Your task to perform on an android device: empty trash in google photos Image 0: 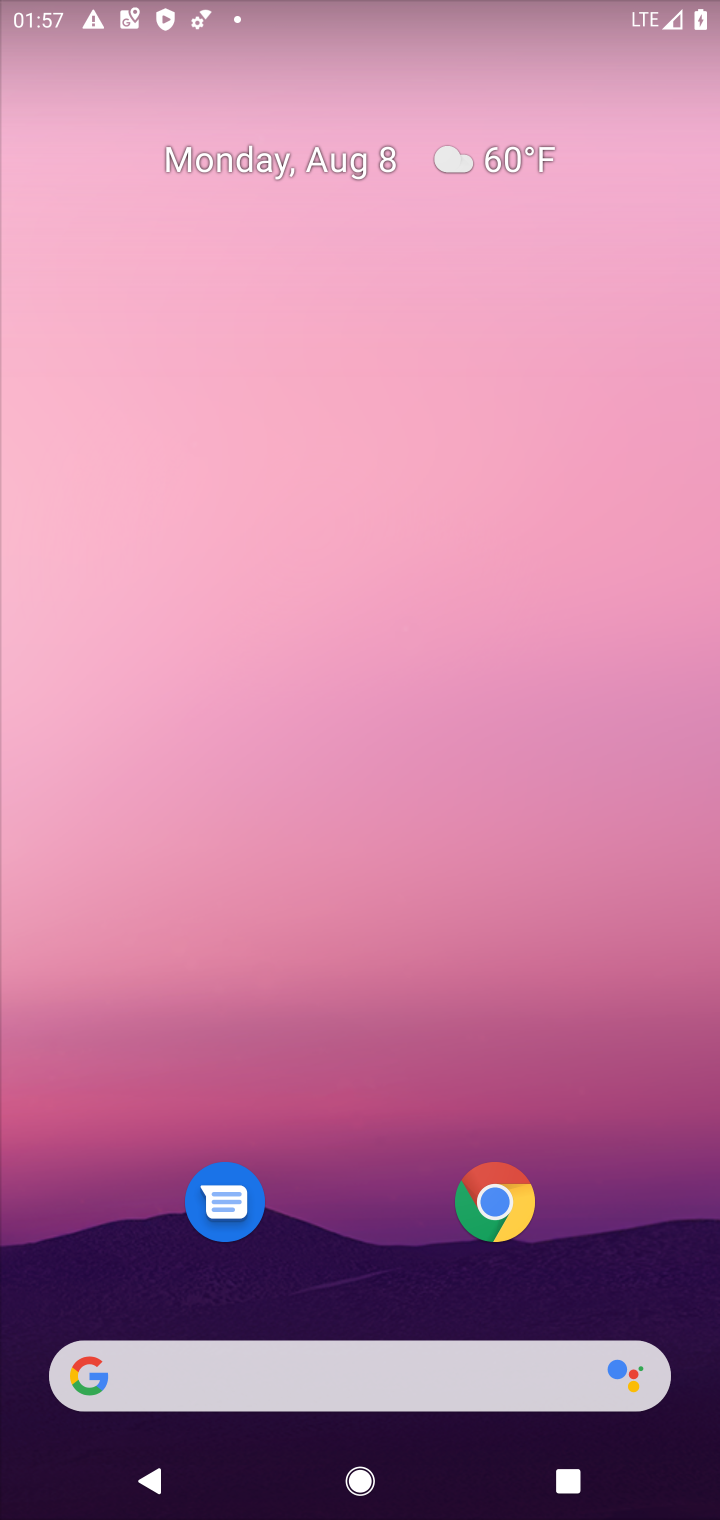
Step 0: drag from (347, 987) to (349, 44)
Your task to perform on an android device: empty trash in google photos Image 1: 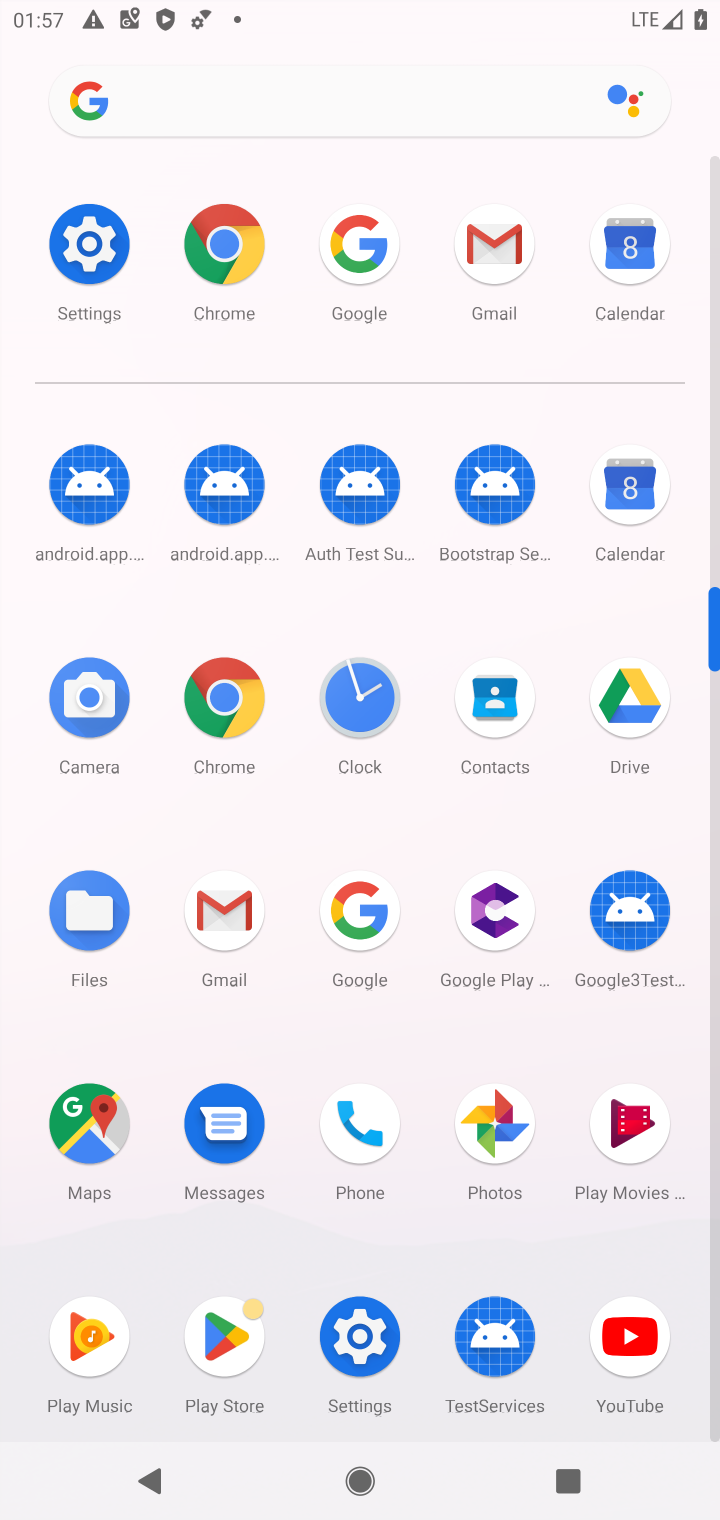
Step 1: click (502, 1107)
Your task to perform on an android device: empty trash in google photos Image 2: 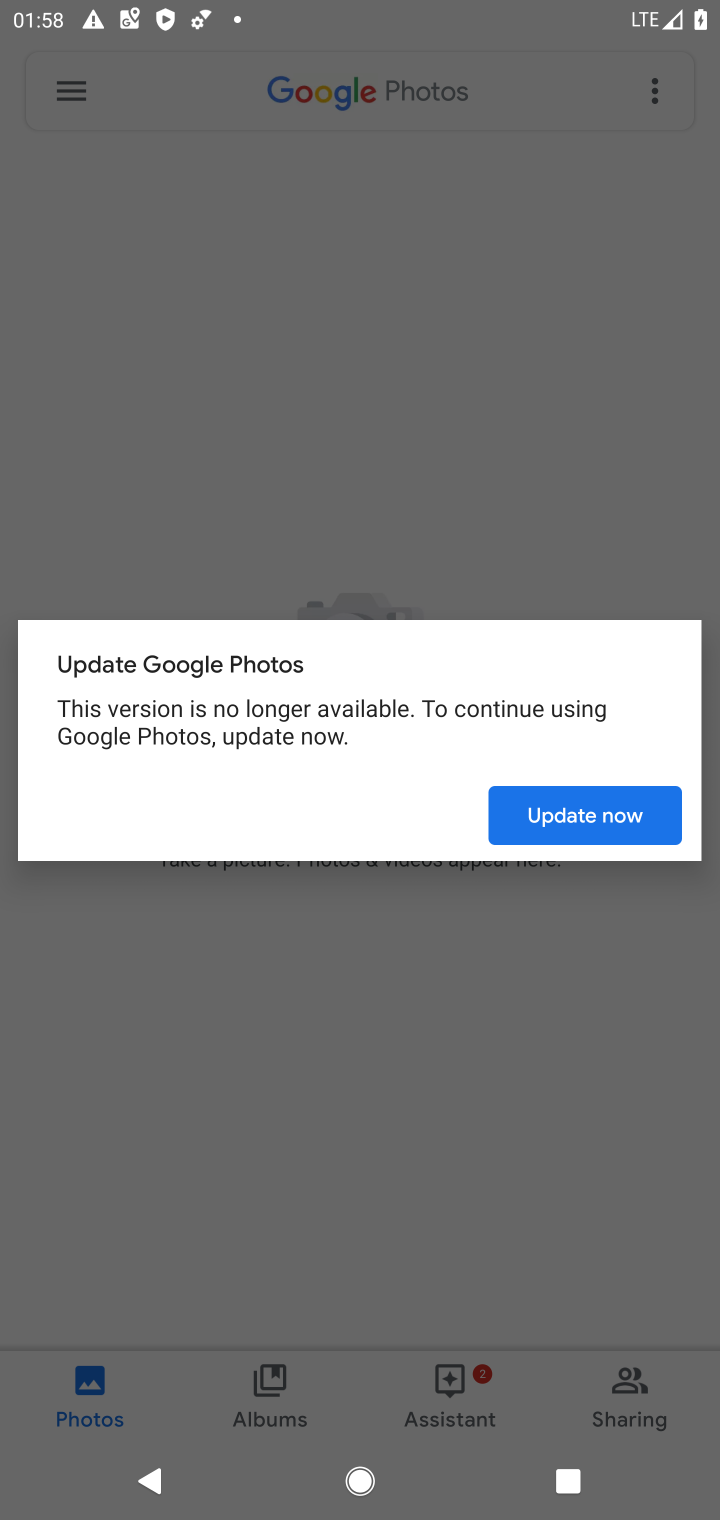
Step 2: click (588, 815)
Your task to perform on an android device: empty trash in google photos Image 3: 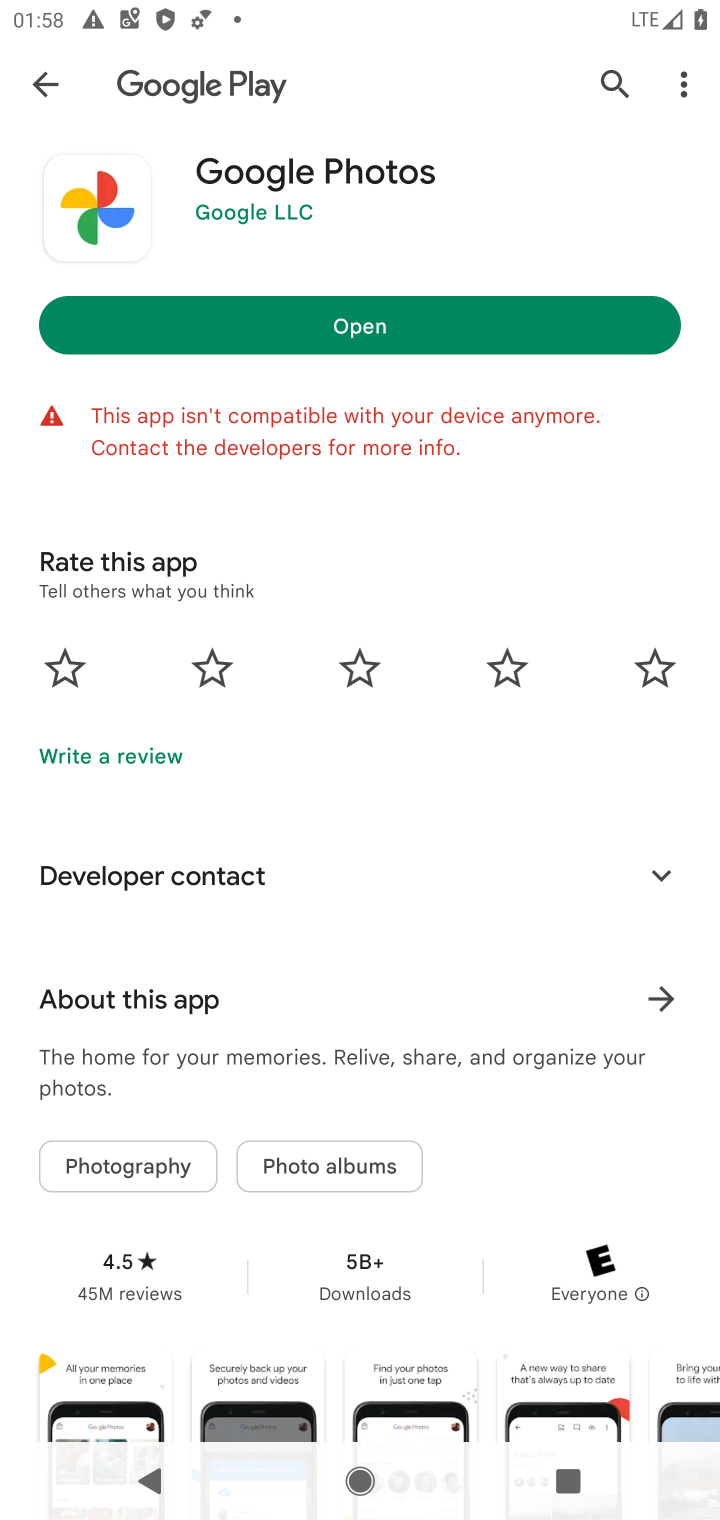
Step 3: click (290, 306)
Your task to perform on an android device: empty trash in google photos Image 4: 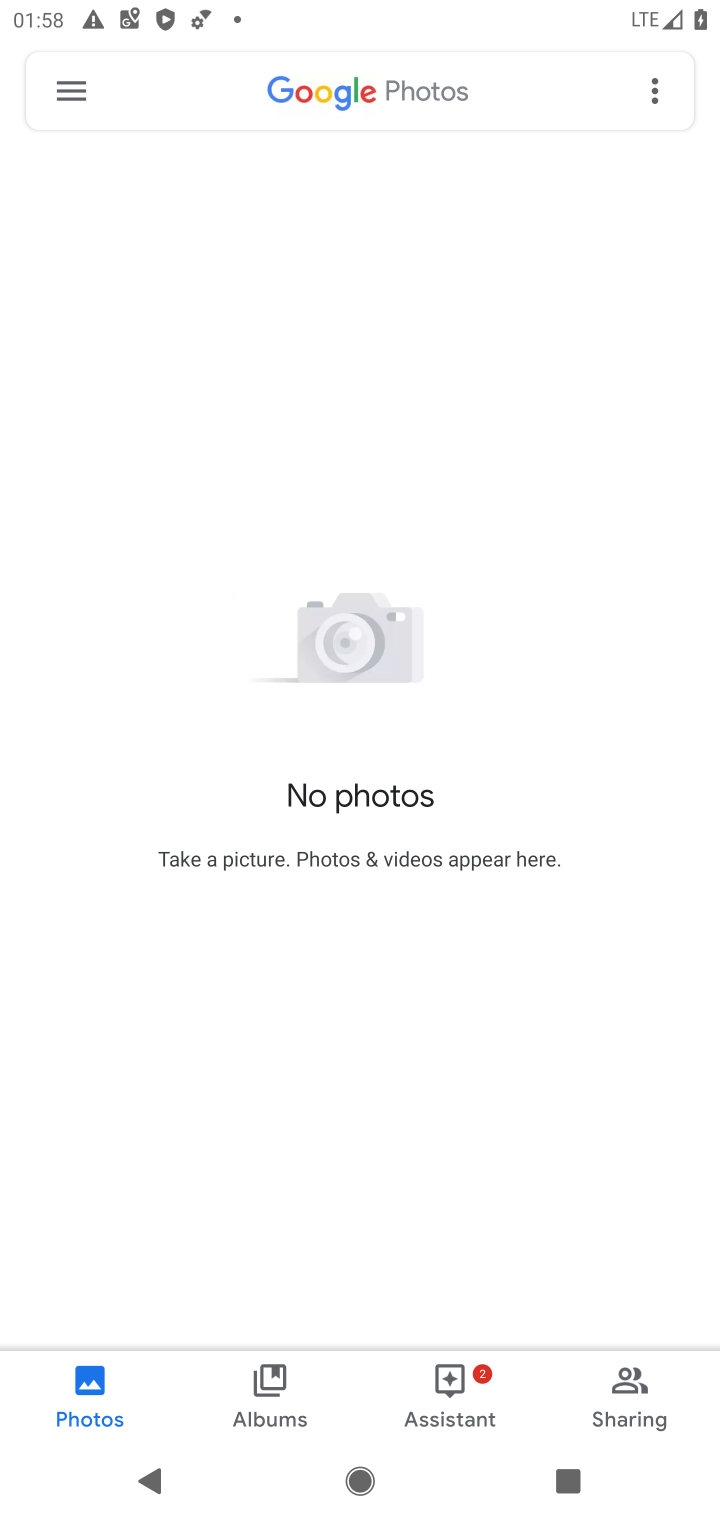
Step 4: click (56, 89)
Your task to perform on an android device: empty trash in google photos Image 5: 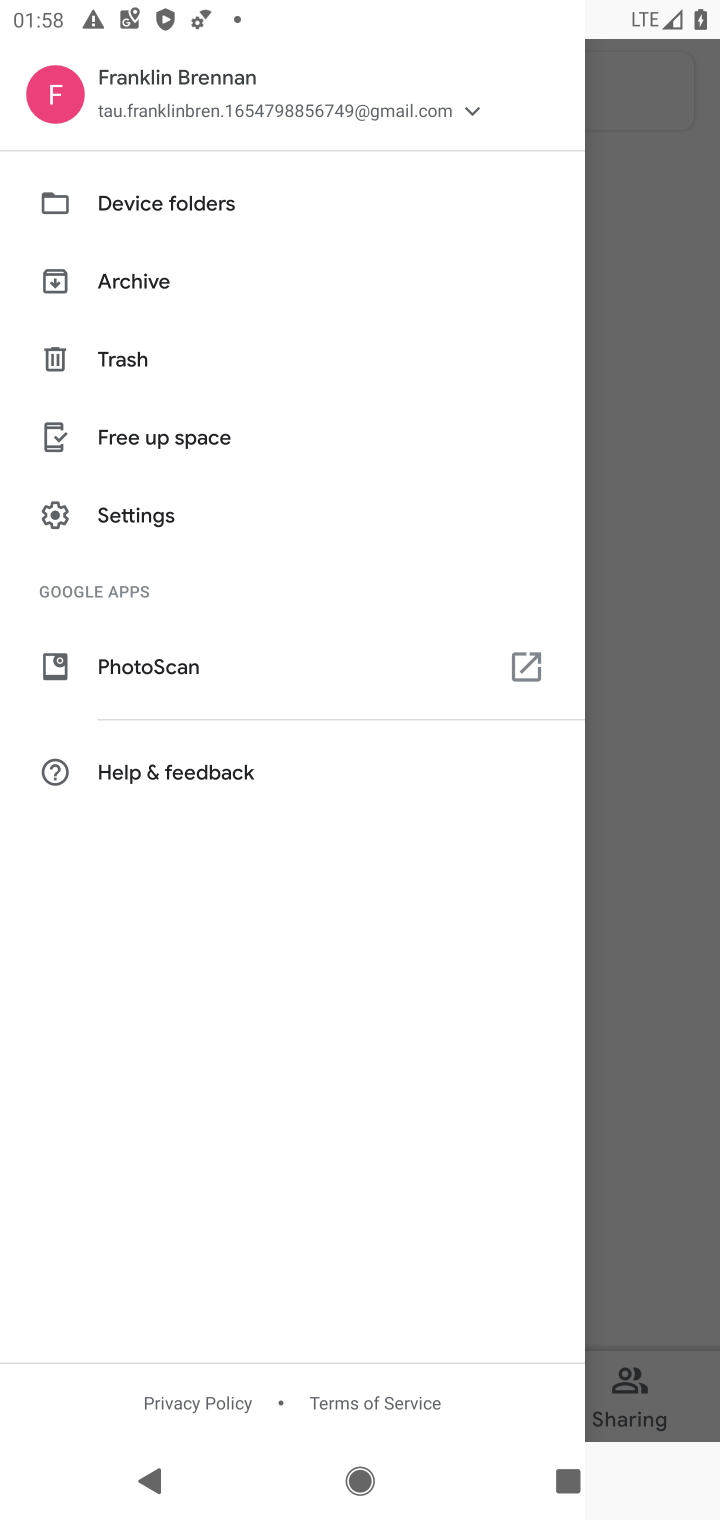
Step 5: click (130, 356)
Your task to perform on an android device: empty trash in google photos Image 6: 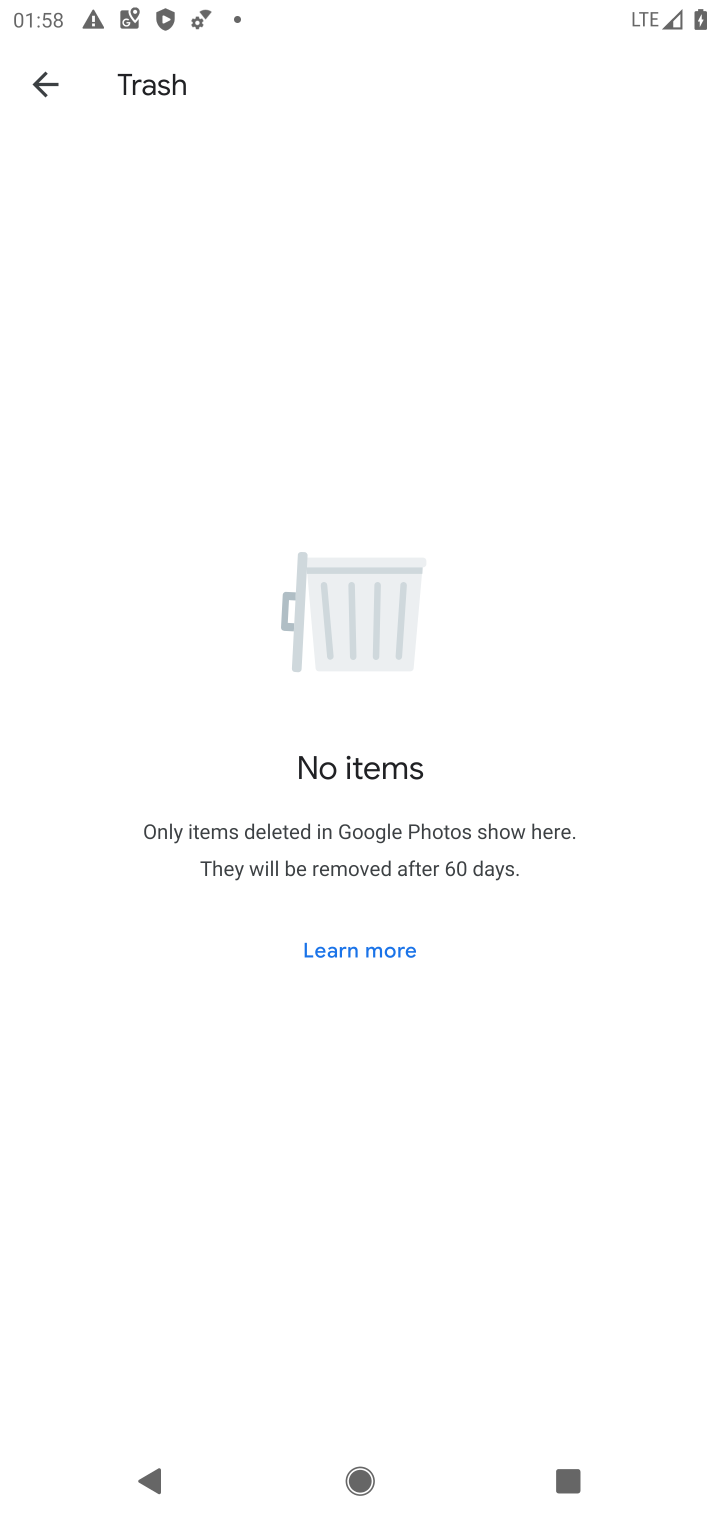
Step 6: task complete